Your task to perform on an android device: Go to accessibility settings Image 0: 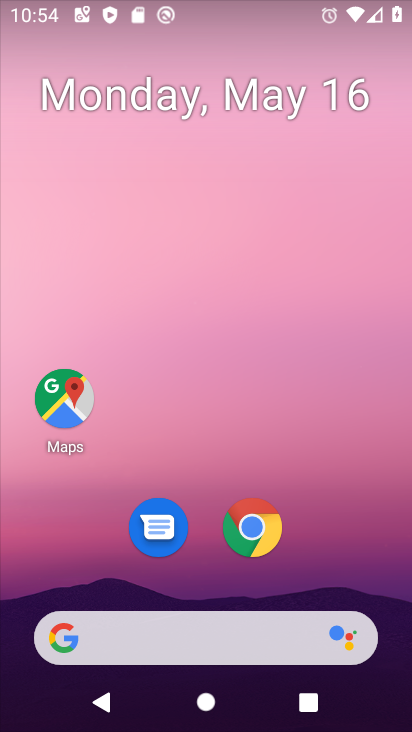
Step 0: drag from (366, 570) to (344, 8)
Your task to perform on an android device: Go to accessibility settings Image 1: 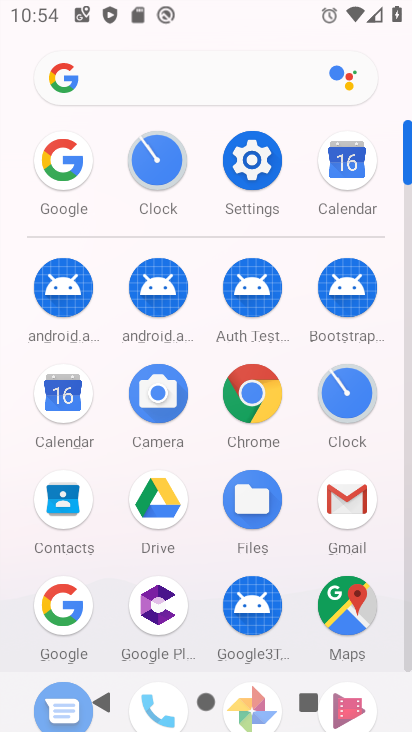
Step 1: click (257, 169)
Your task to perform on an android device: Go to accessibility settings Image 2: 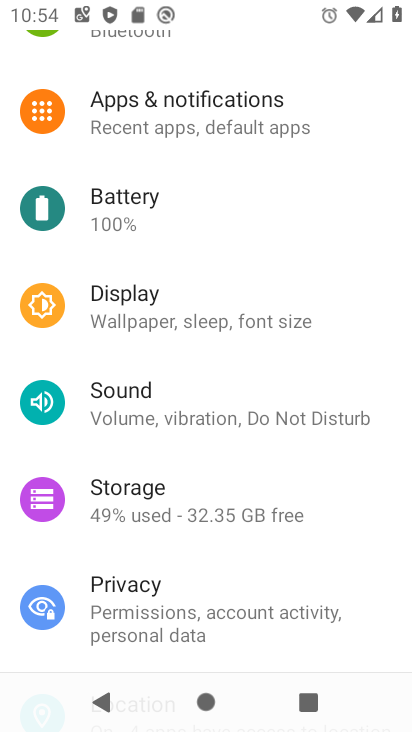
Step 2: drag from (262, 481) to (286, 163)
Your task to perform on an android device: Go to accessibility settings Image 3: 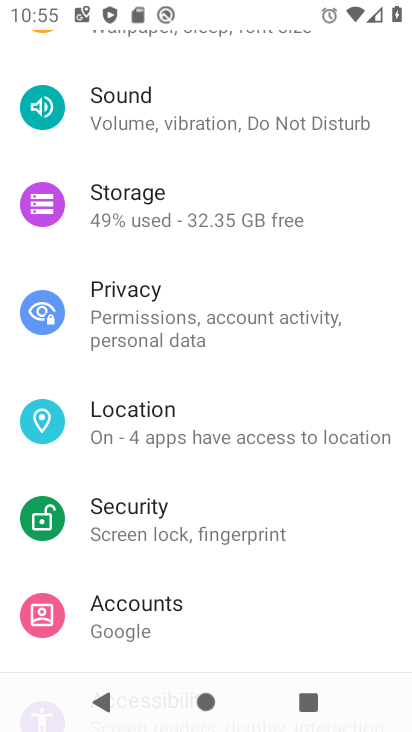
Step 3: drag from (234, 443) to (261, 134)
Your task to perform on an android device: Go to accessibility settings Image 4: 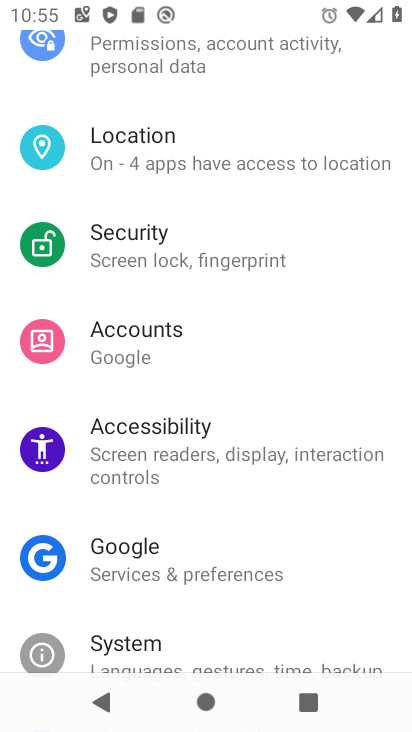
Step 4: click (164, 452)
Your task to perform on an android device: Go to accessibility settings Image 5: 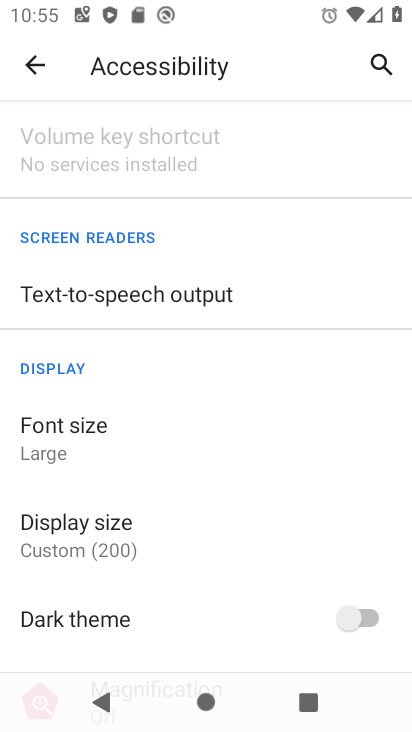
Step 5: task complete